Your task to perform on an android device: allow cookies in the chrome app Image 0: 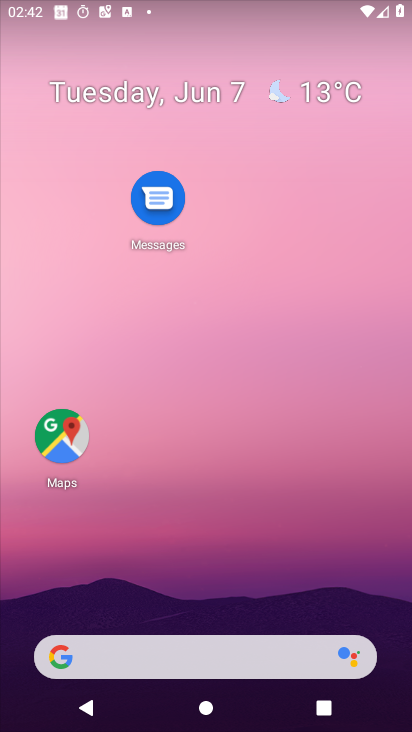
Step 0: drag from (189, 612) to (195, 45)
Your task to perform on an android device: allow cookies in the chrome app Image 1: 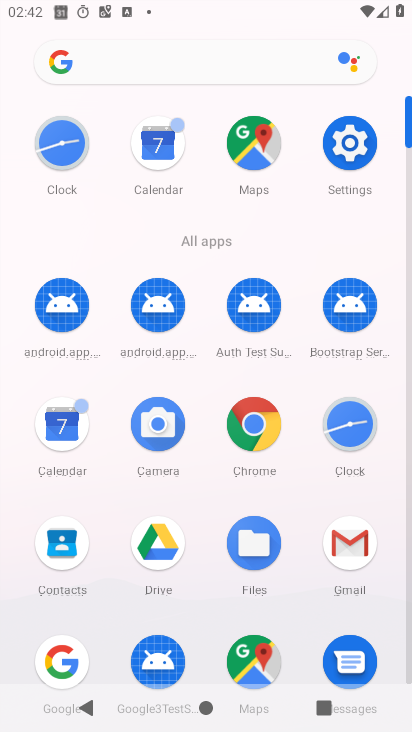
Step 1: click (248, 464)
Your task to perform on an android device: allow cookies in the chrome app Image 2: 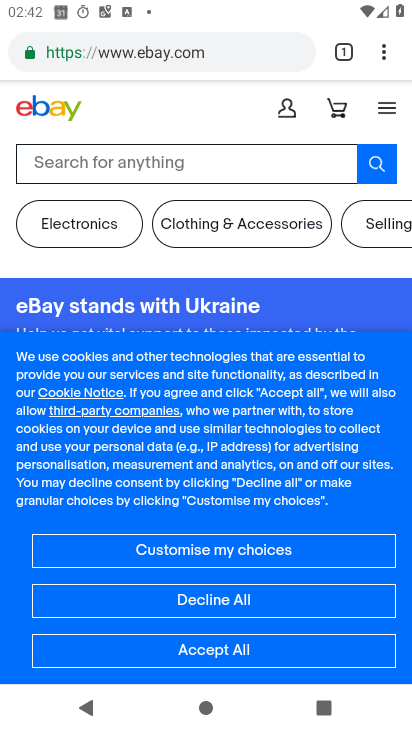
Step 2: click (382, 55)
Your task to perform on an android device: allow cookies in the chrome app Image 3: 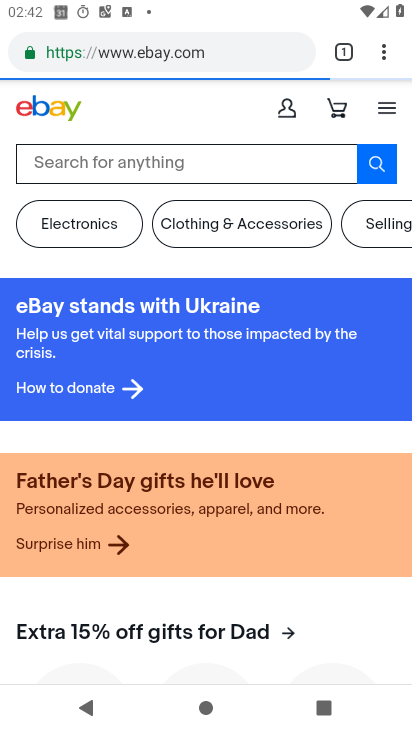
Step 3: click (383, 48)
Your task to perform on an android device: allow cookies in the chrome app Image 4: 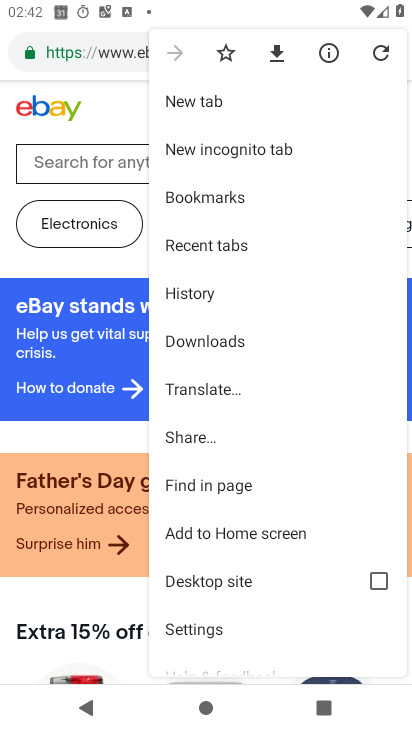
Step 4: click (196, 630)
Your task to perform on an android device: allow cookies in the chrome app Image 5: 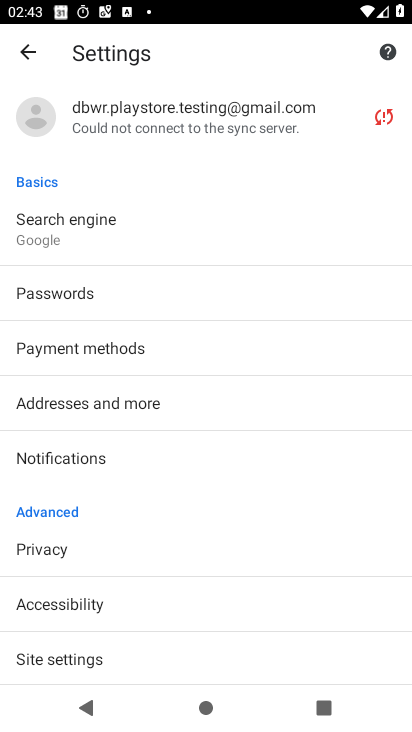
Step 5: drag from (80, 603) to (122, 252)
Your task to perform on an android device: allow cookies in the chrome app Image 6: 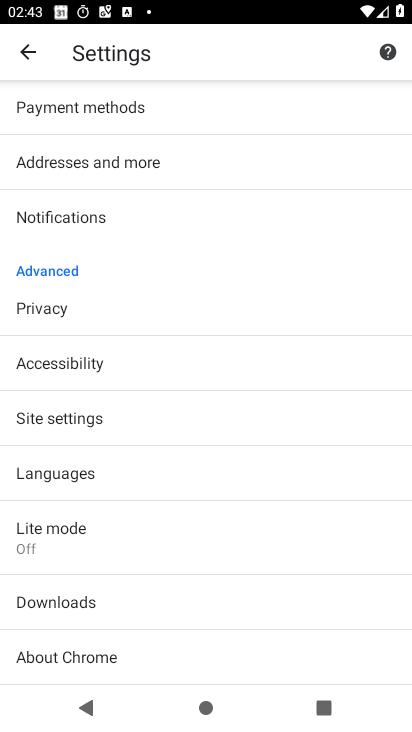
Step 6: click (59, 416)
Your task to perform on an android device: allow cookies in the chrome app Image 7: 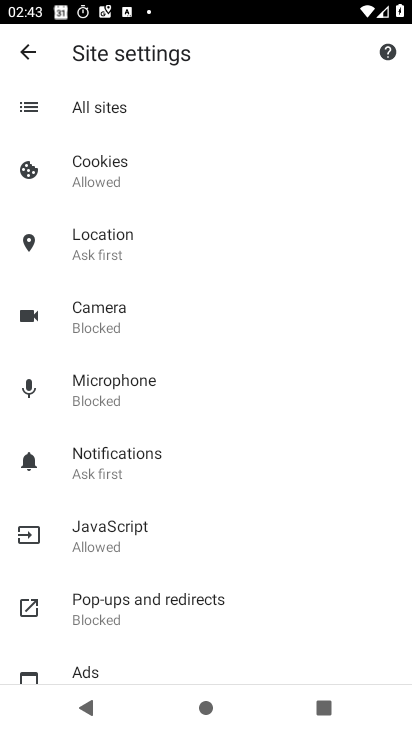
Step 7: click (91, 198)
Your task to perform on an android device: allow cookies in the chrome app Image 8: 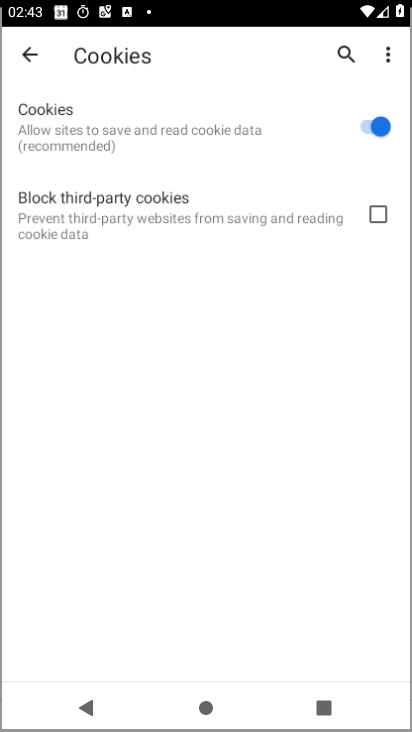
Step 8: task complete